Your task to perform on an android device: Open ESPN.com Image 0: 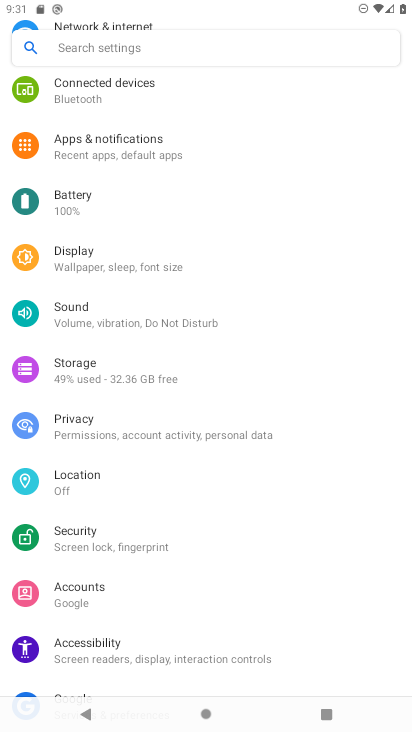
Step 0: press home button
Your task to perform on an android device: Open ESPN.com Image 1: 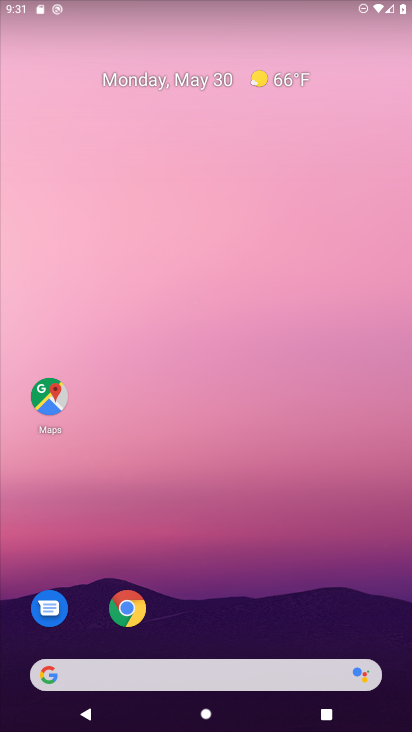
Step 1: click (123, 605)
Your task to perform on an android device: Open ESPN.com Image 2: 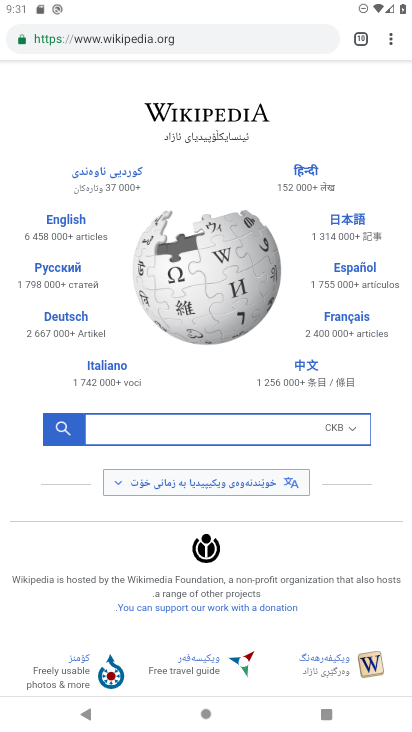
Step 2: click (392, 46)
Your task to perform on an android device: Open ESPN.com Image 3: 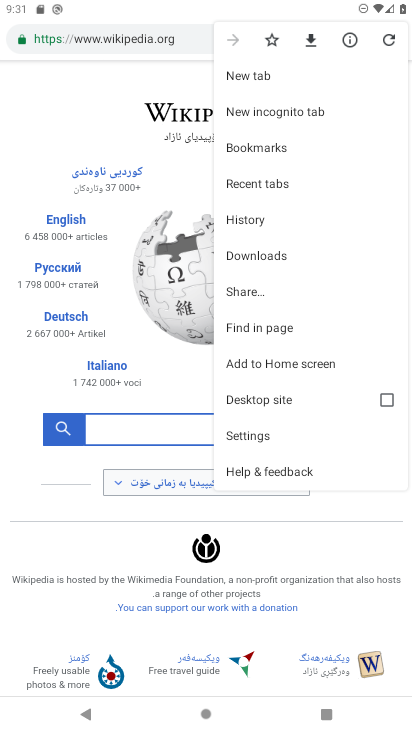
Step 3: click (240, 73)
Your task to perform on an android device: Open ESPN.com Image 4: 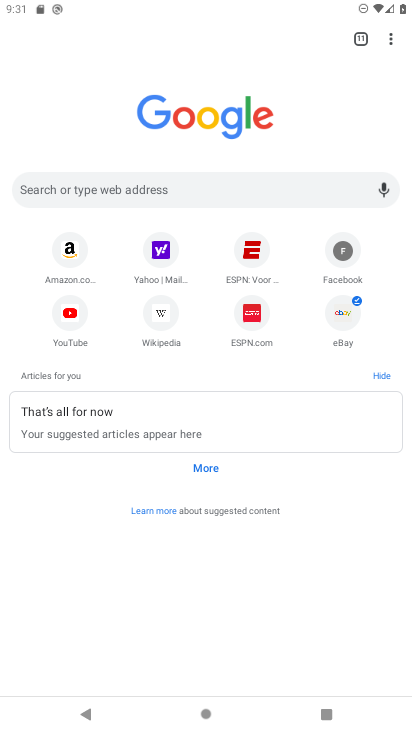
Step 4: click (249, 315)
Your task to perform on an android device: Open ESPN.com Image 5: 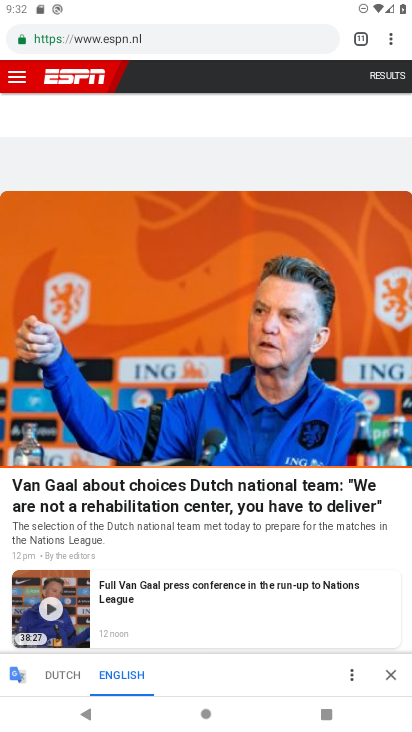
Step 5: task complete